Your task to perform on an android device: Go to Yahoo.com Image 0: 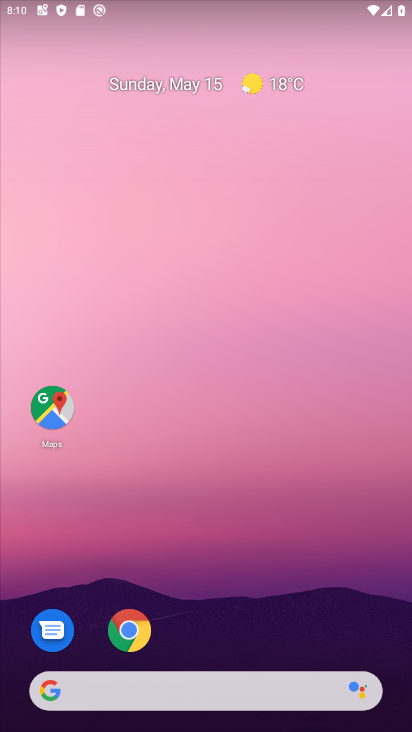
Step 0: drag from (202, 643) to (211, 231)
Your task to perform on an android device: Go to Yahoo.com Image 1: 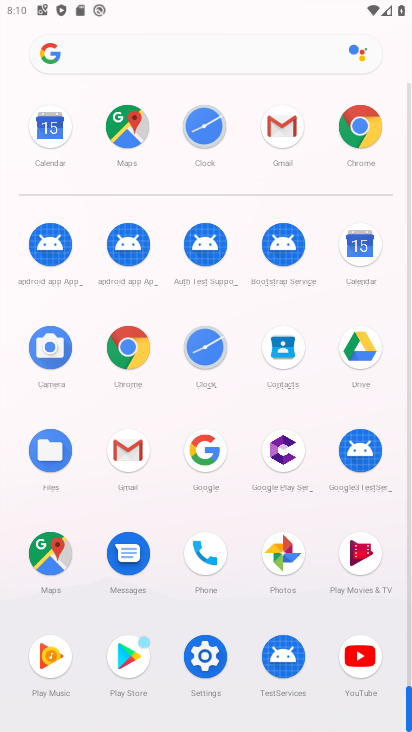
Step 1: click (199, 43)
Your task to perform on an android device: Go to Yahoo.com Image 2: 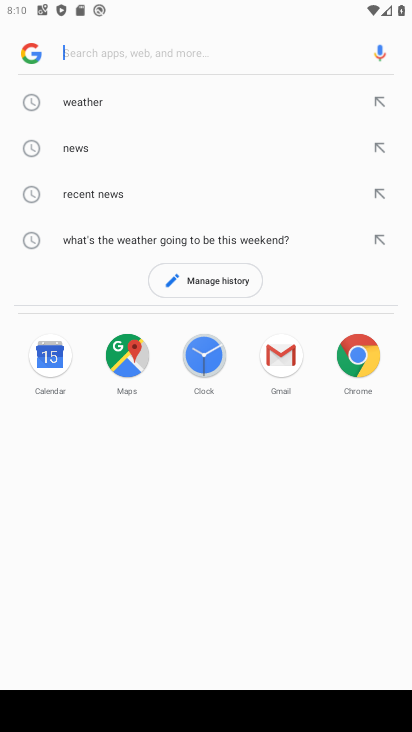
Step 2: type "yahoo.com"
Your task to perform on an android device: Go to Yahoo.com Image 3: 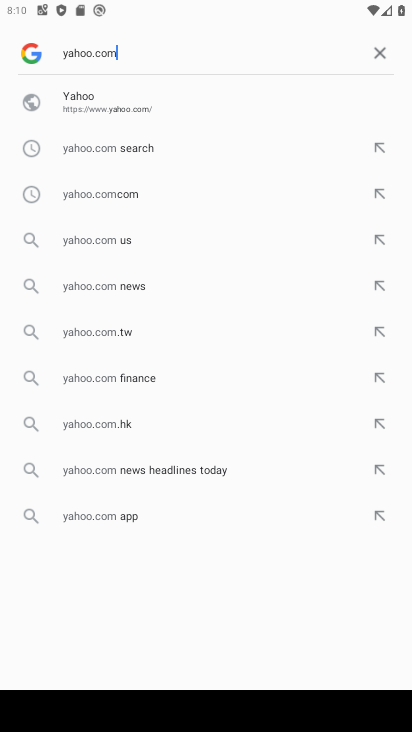
Step 3: click (128, 87)
Your task to perform on an android device: Go to Yahoo.com Image 4: 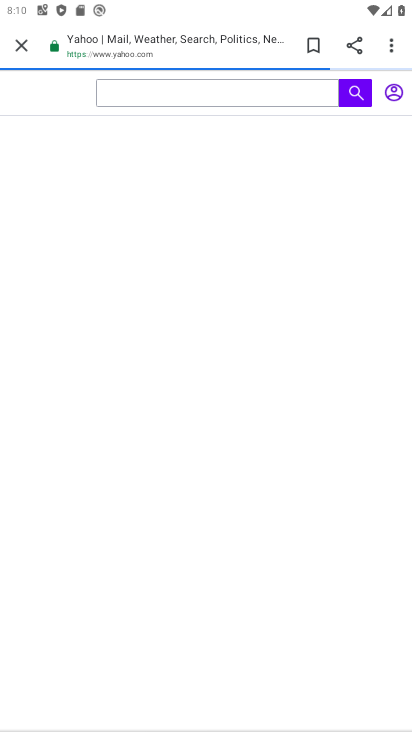
Step 4: task complete